Your task to perform on an android device: turn pop-ups off in chrome Image 0: 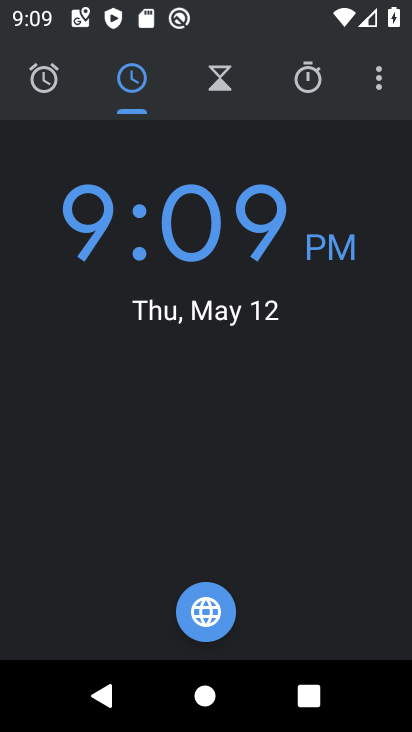
Step 0: press home button
Your task to perform on an android device: turn pop-ups off in chrome Image 1: 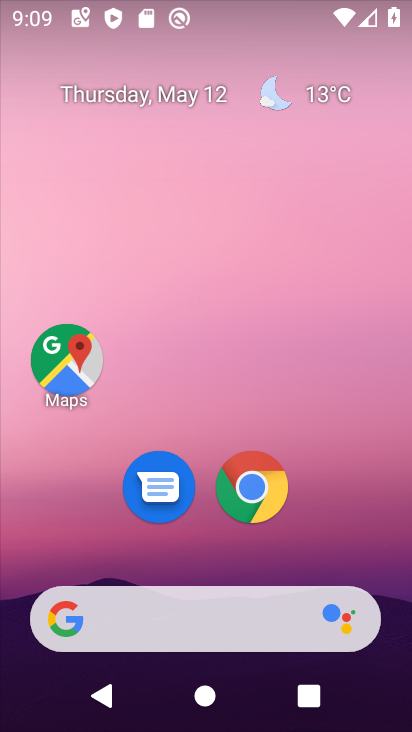
Step 1: click (261, 481)
Your task to perform on an android device: turn pop-ups off in chrome Image 2: 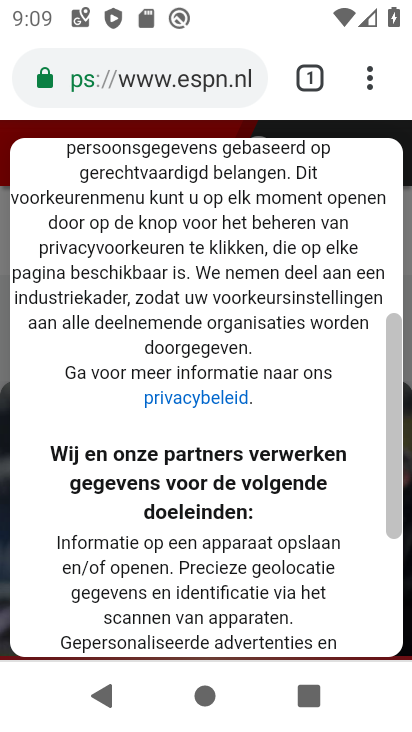
Step 2: click (376, 82)
Your task to perform on an android device: turn pop-ups off in chrome Image 3: 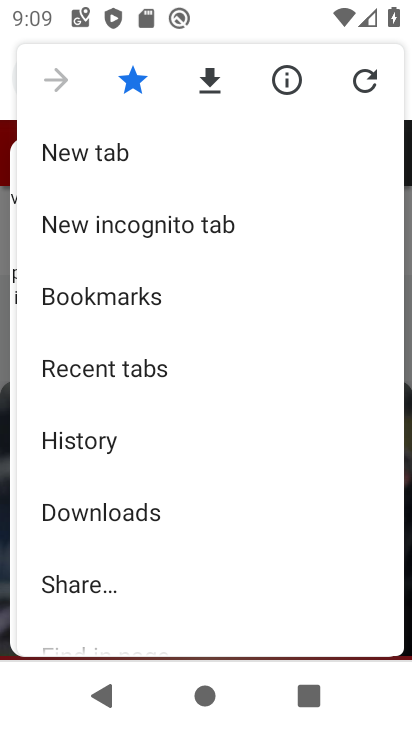
Step 3: drag from (110, 579) to (218, 131)
Your task to perform on an android device: turn pop-ups off in chrome Image 4: 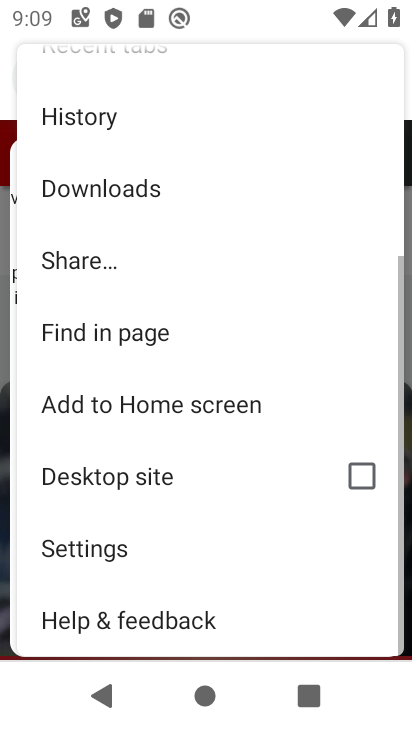
Step 4: click (105, 536)
Your task to perform on an android device: turn pop-ups off in chrome Image 5: 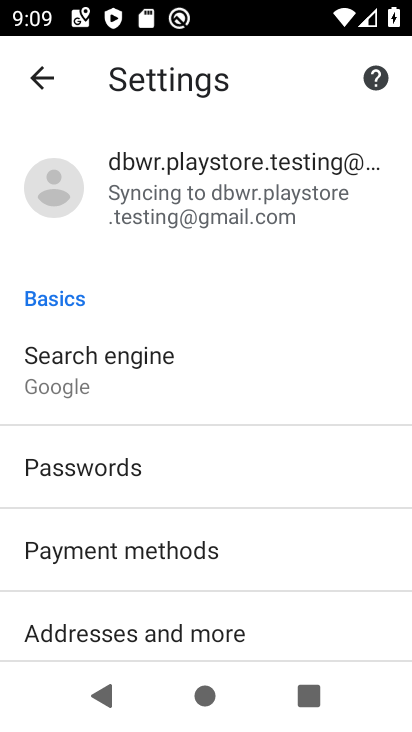
Step 5: drag from (112, 609) to (229, 129)
Your task to perform on an android device: turn pop-ups off in chrome Image 6: 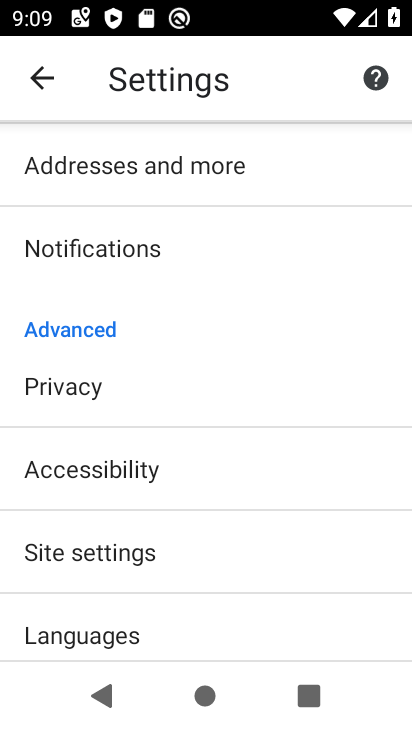
Step 6: click (176, 560)
Your task to perform on an android device: turn pop-ups off in chrome Image 7: 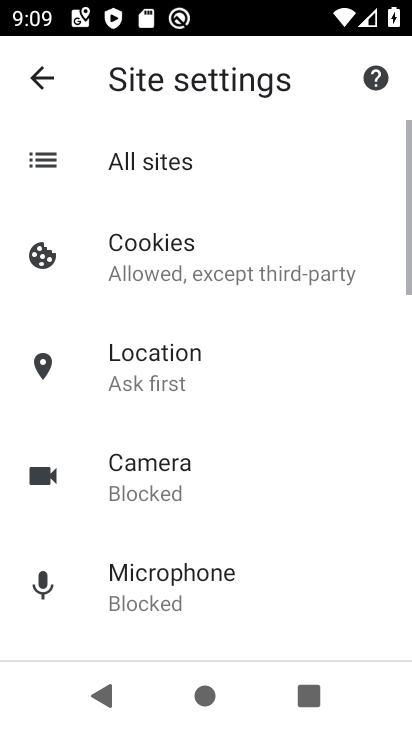
Step 7: drag from (176, 560) to (266, 202)
Your task to perform on an android device: turn pop-ups off in chrome Image 8: 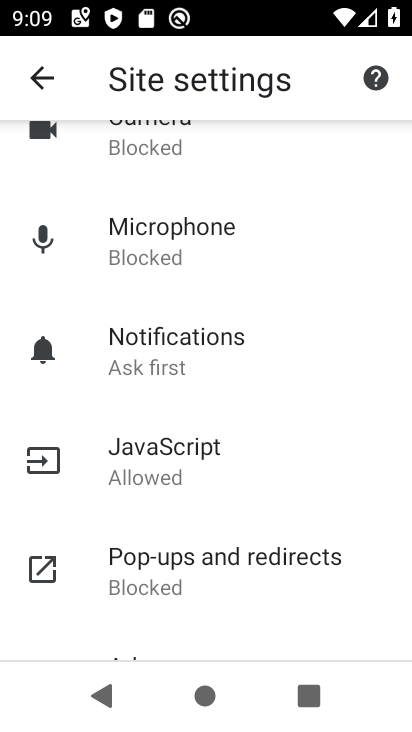
Step 8: click (171, 588)
Your task to perform on an android device: turn pop-ups off in chrome Image 9: 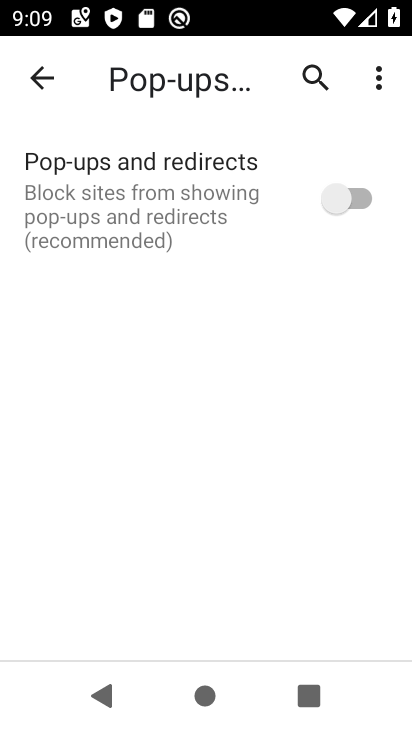
Step 9: task complete